Your task to perform on an android device: turn on notifications settings in the gmail app Image 0: 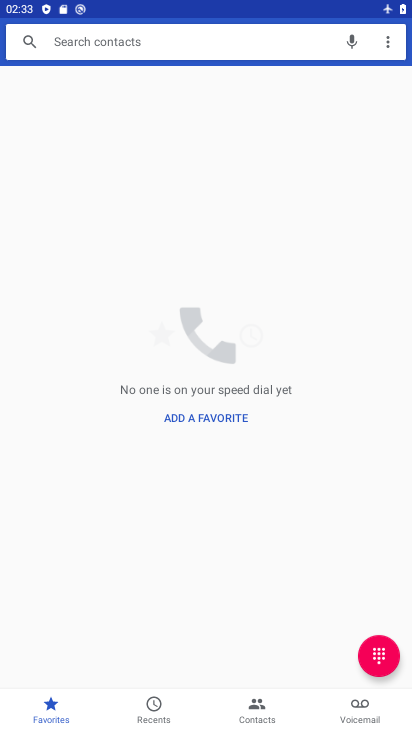
Step 0: press home button
Your task to perform on an android device: turn on notifications settings in the gmail app Image 1: 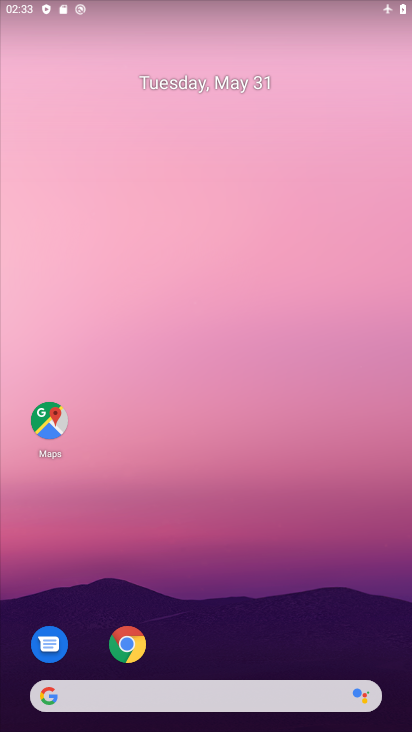
Step 1: drag from (319, 629) to (183, 155)
Your task to perform on an android device: turn on notifications settings in the gmail app Image 2: 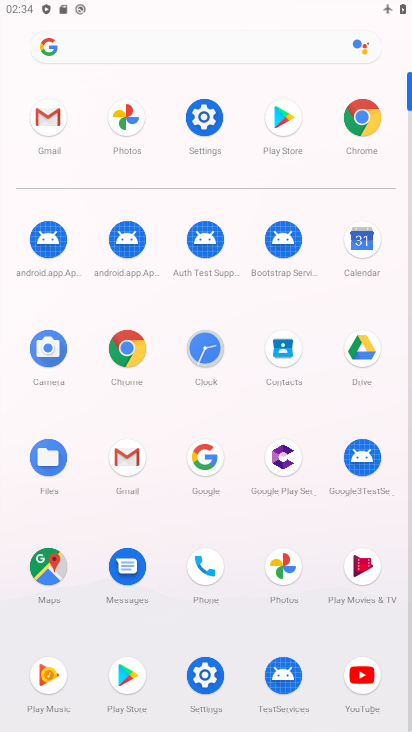
Step 2: click (47, 122)
Your task to perform on an android device: turn on notifications settings in the gmail app Image 3: 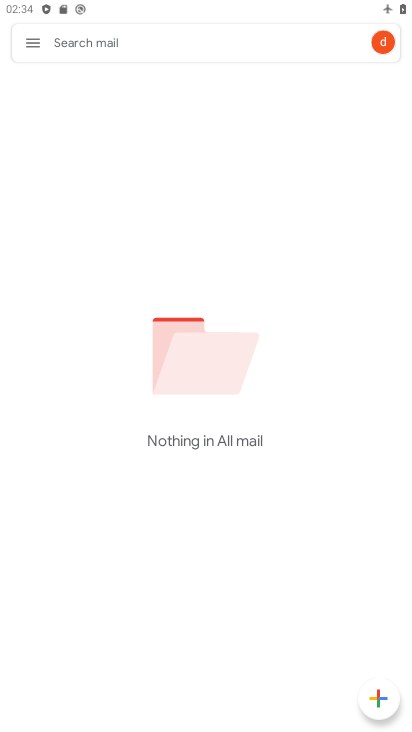
Step 3: click (35, 41)
Your task to perform on an android device: turn on notifications settings in the gmail app Image 4: 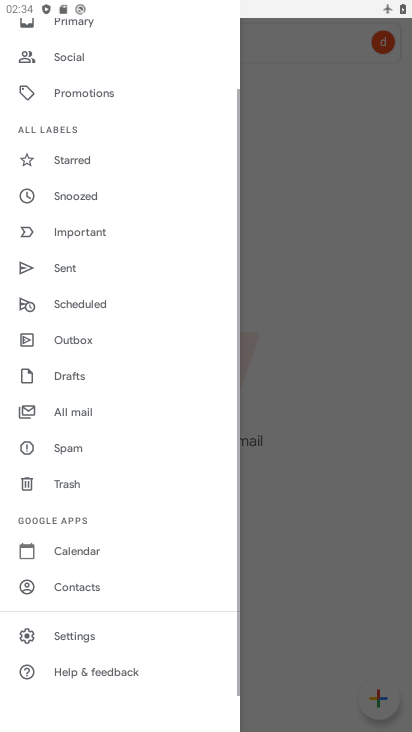
Step 4: click (108, 639)
Your task to perform on an android device: turn on notifications settings in the gmail app Image 5: 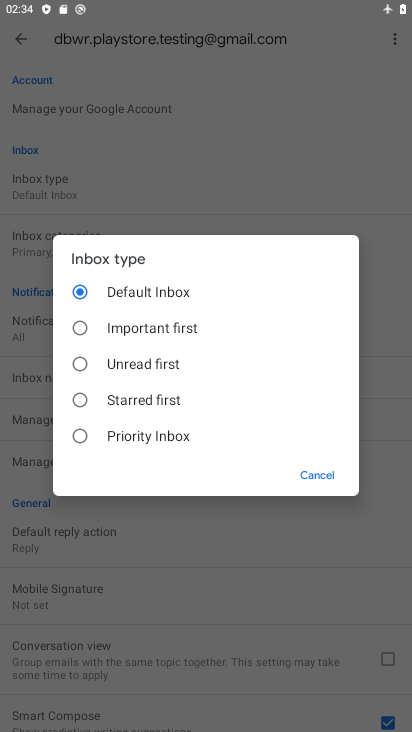
Step 5: click (313, 472)
Your task to perform on an android device: turn on notifications settings in the gmail app Image 6: 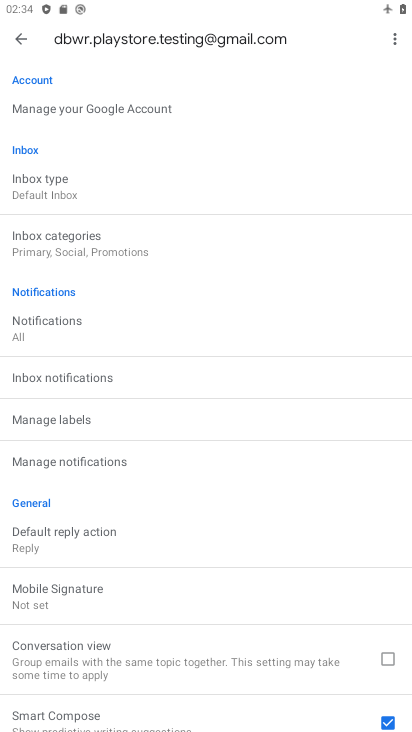
Step 6: click (118, 459)
Your task to perform on an android device: turn on notifications settings in the gmail app Image 7: 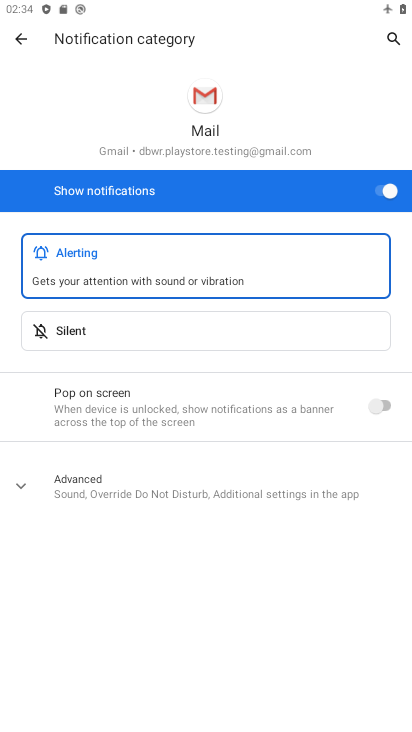
Step 7: click (394, 190)
Your task to perform on an android device: turn on notifications settings in the gmail app Image 8: 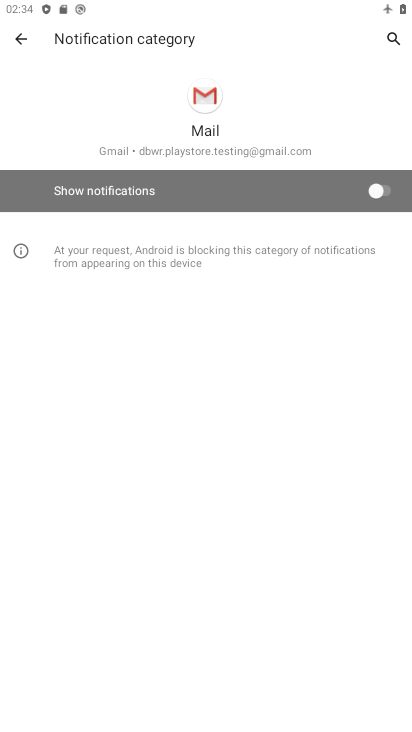
Step 8: task complete